Your task to perform on an android device: open app "Grab" Image 0: 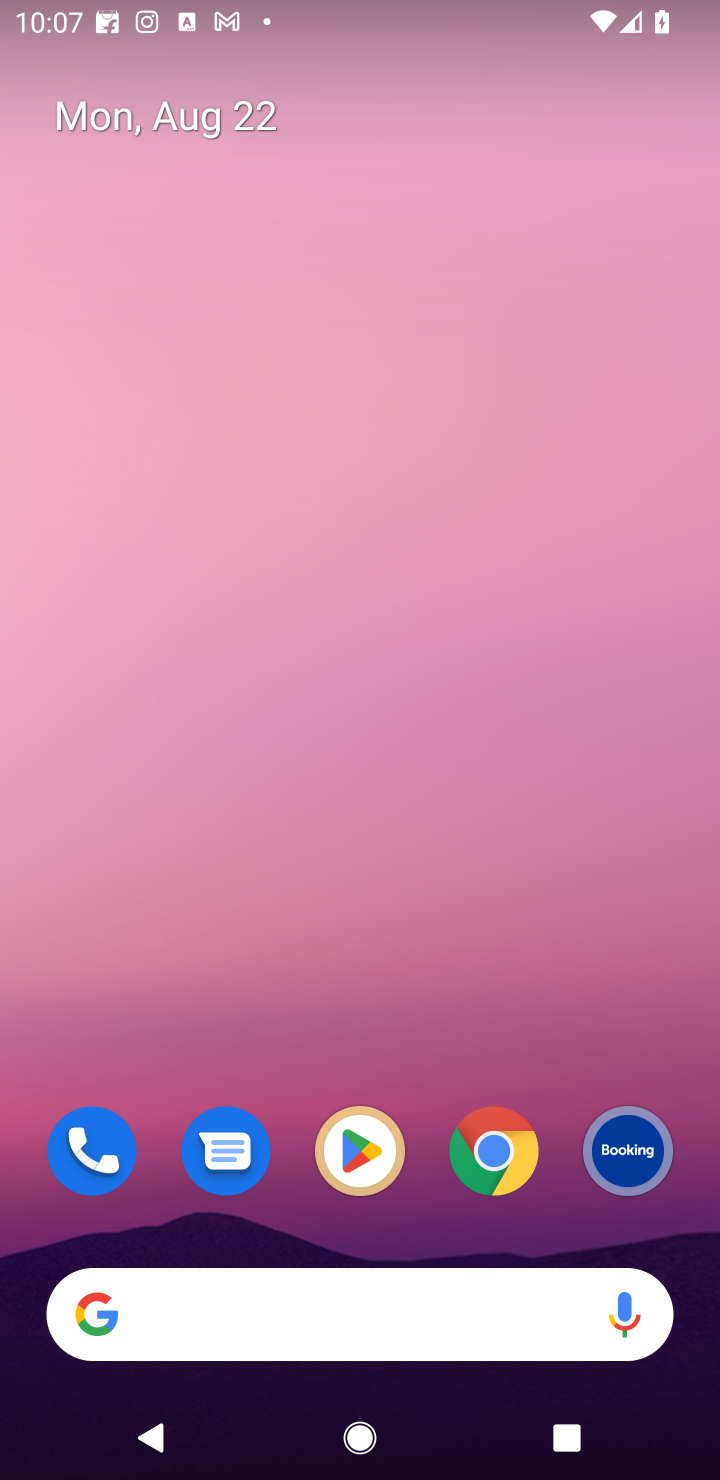
Step 0: press home button
Your task to perform on an android device: open app "Grab" Image 1: 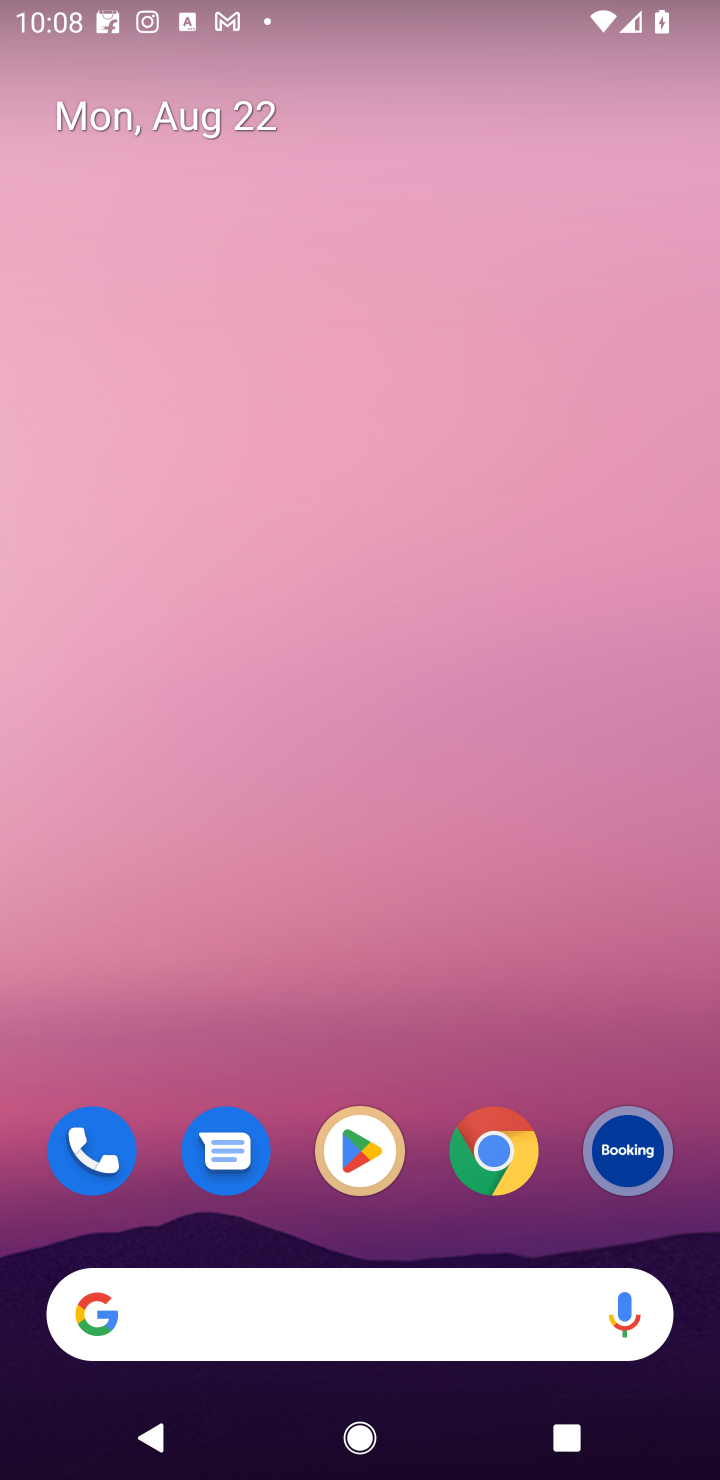
Step 1: click (368, 1156)
Your task to perform on an android device: open app "Grab" Image 2: 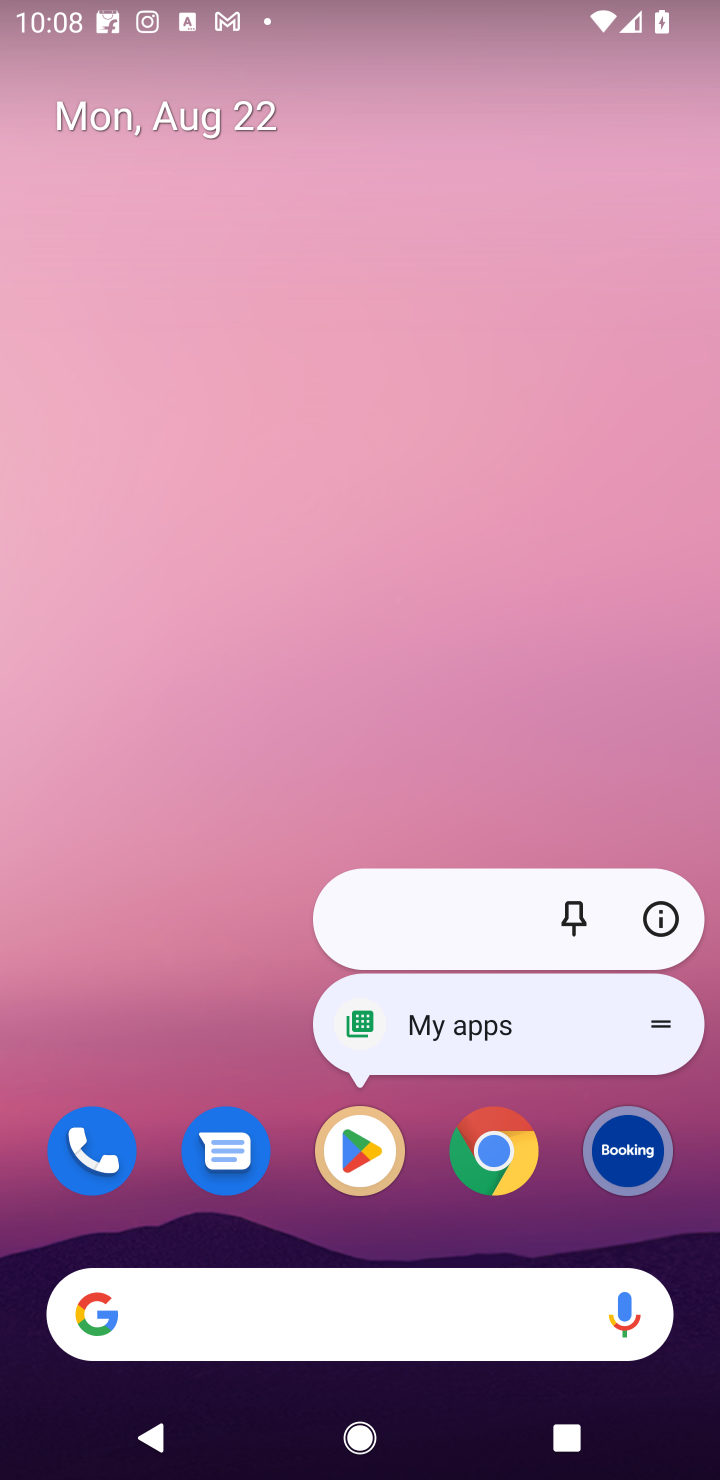
Step 2: click (368, 1171)
Your task to perform on an android device: open app "Grab" Image 3: 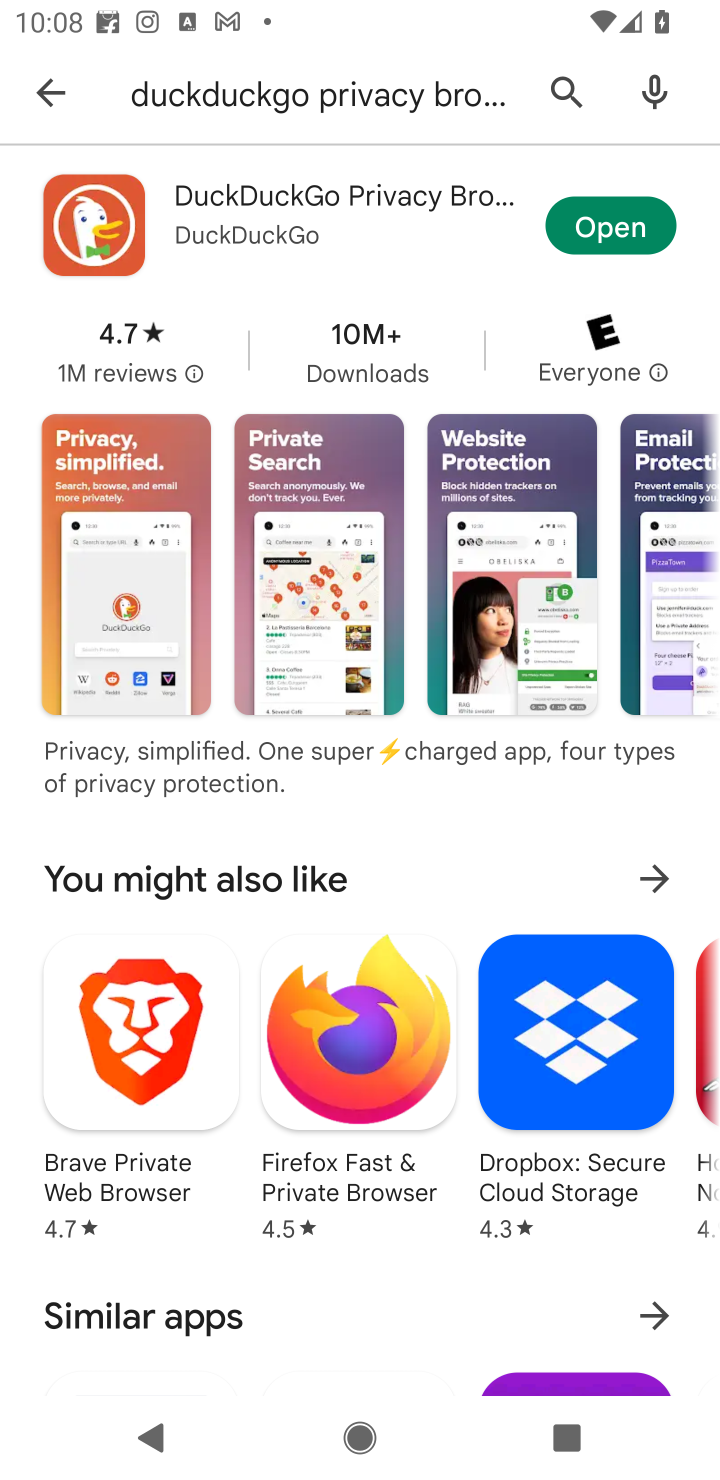
Step 3: click (573, 91)
Your task to perform on an android device: open app "Grab" Image 4: 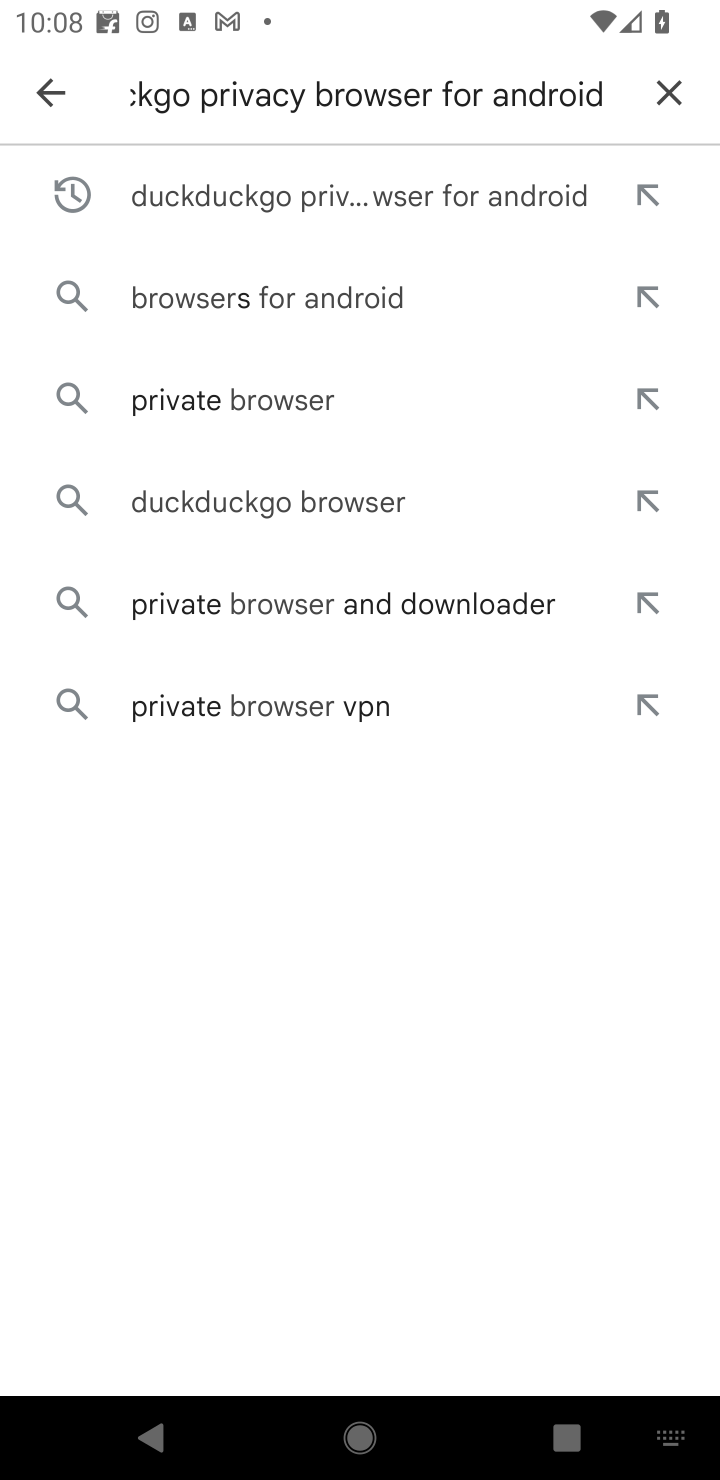
Step 4: click (664, 83)
Your task to perform on an android device: open app "Grab" Image 5: 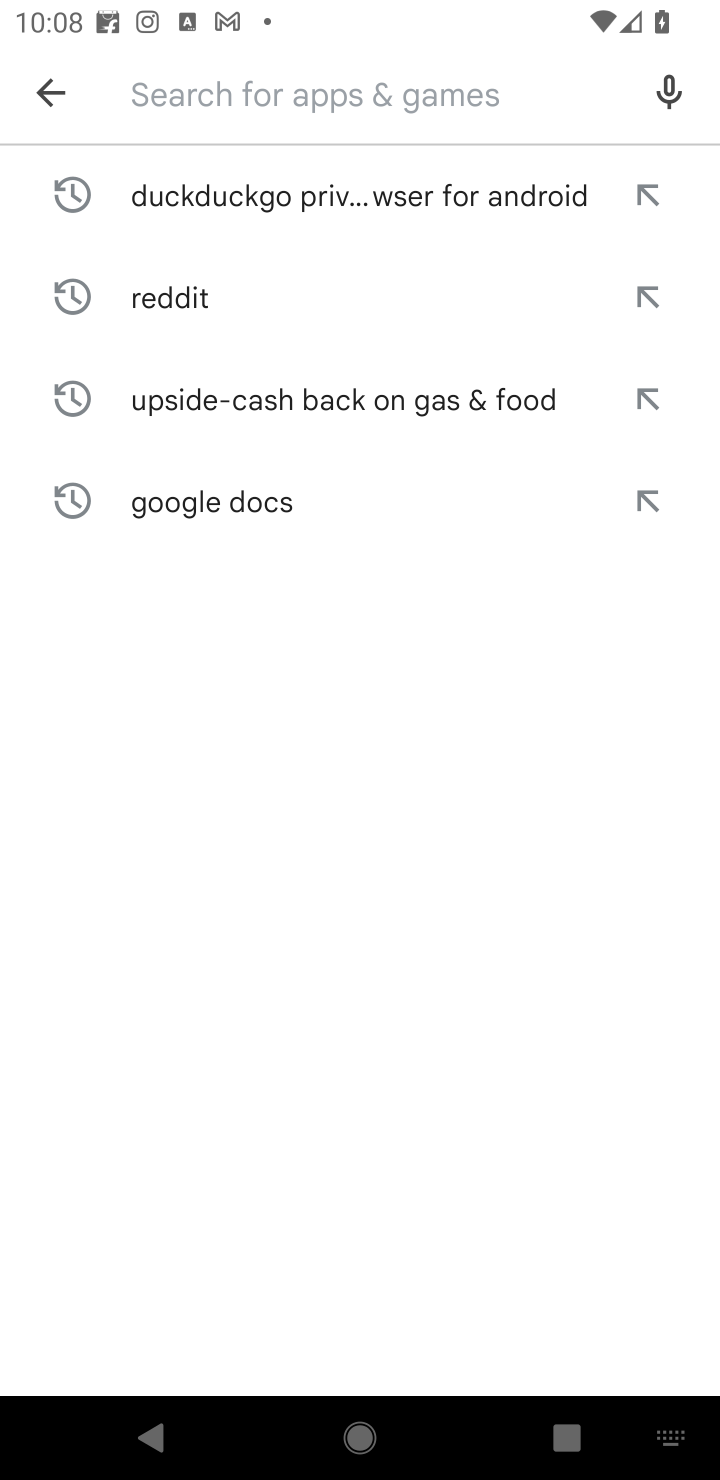
Step 5: type "Grab"
Your task to perform on an android device: open app "Grab" Image 6: 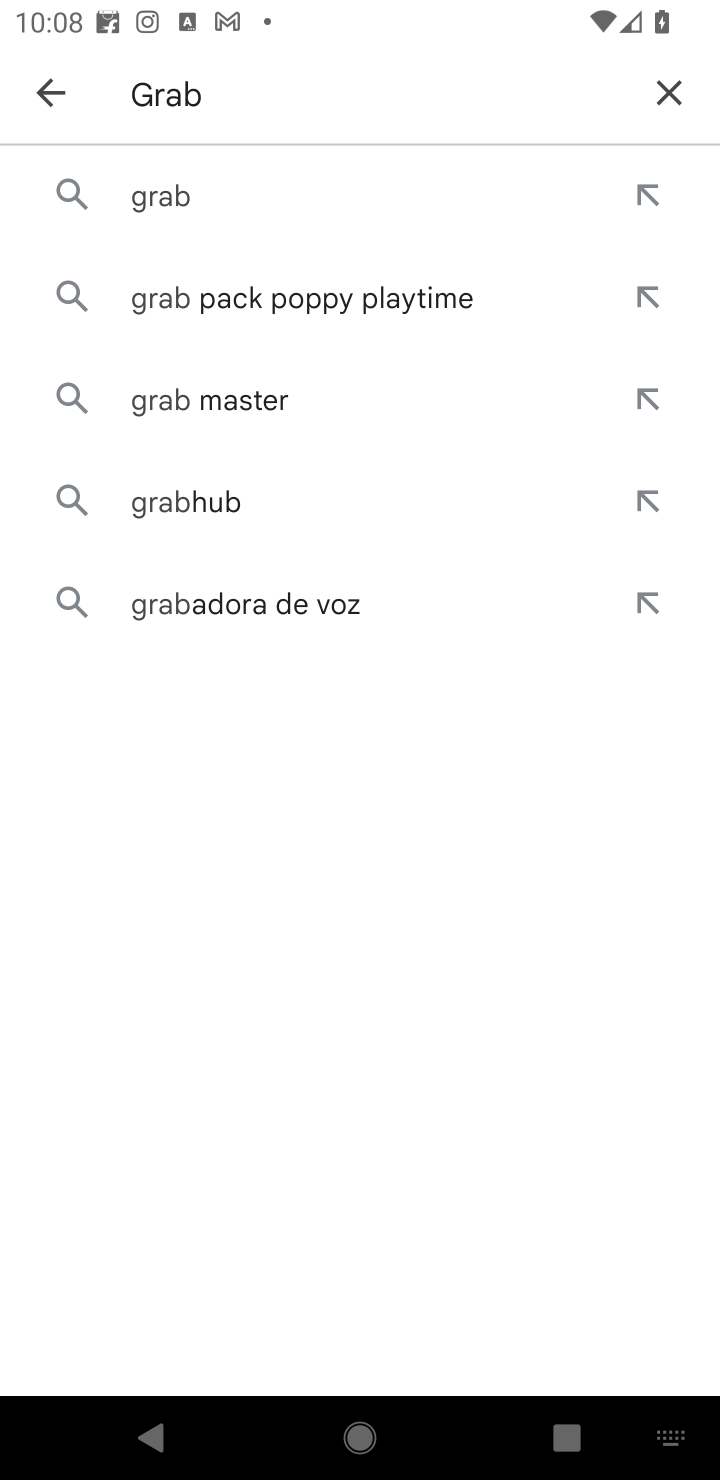
Step 6: click (186, 196)
Your task to perform on an android device: open app "Grab" Image 7: 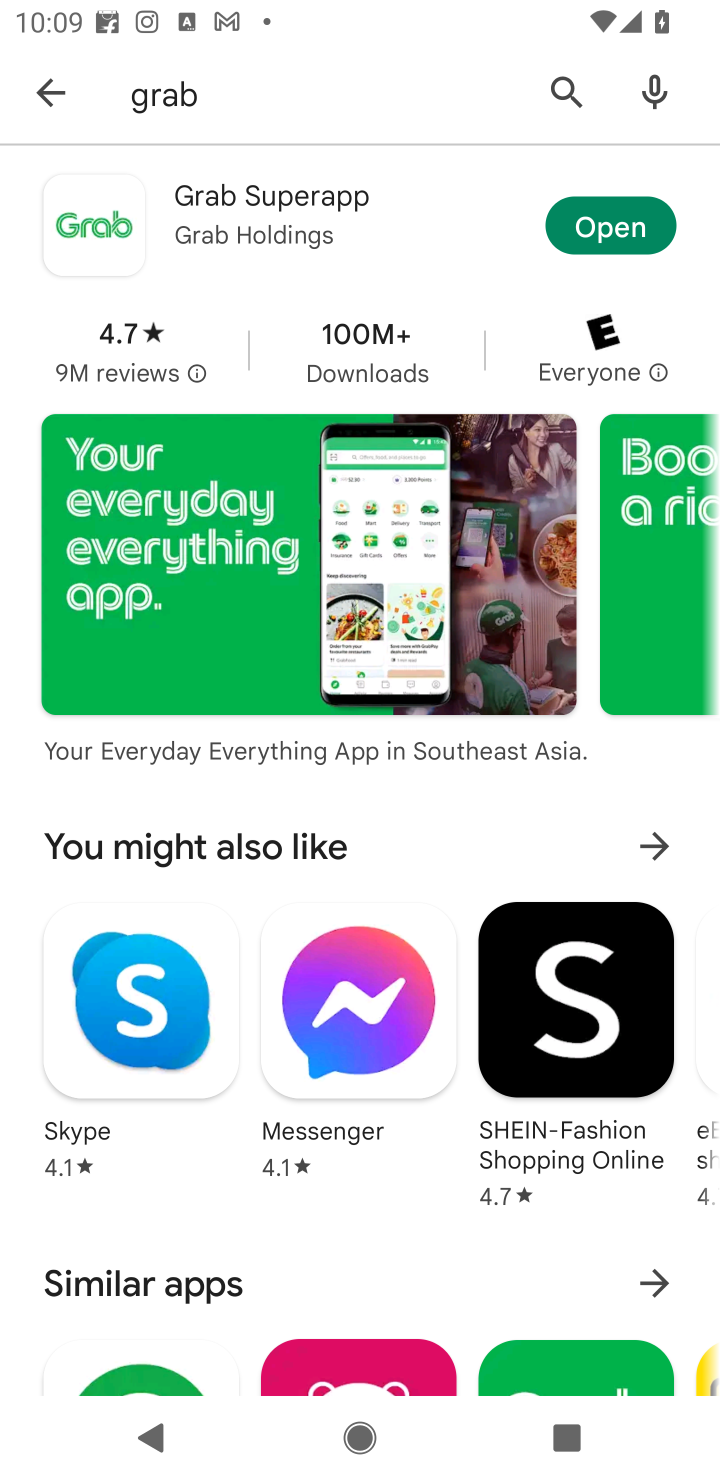
Step 7: click (642, 229)
Your task to perform on an android device: open app "Grab" Image 8: 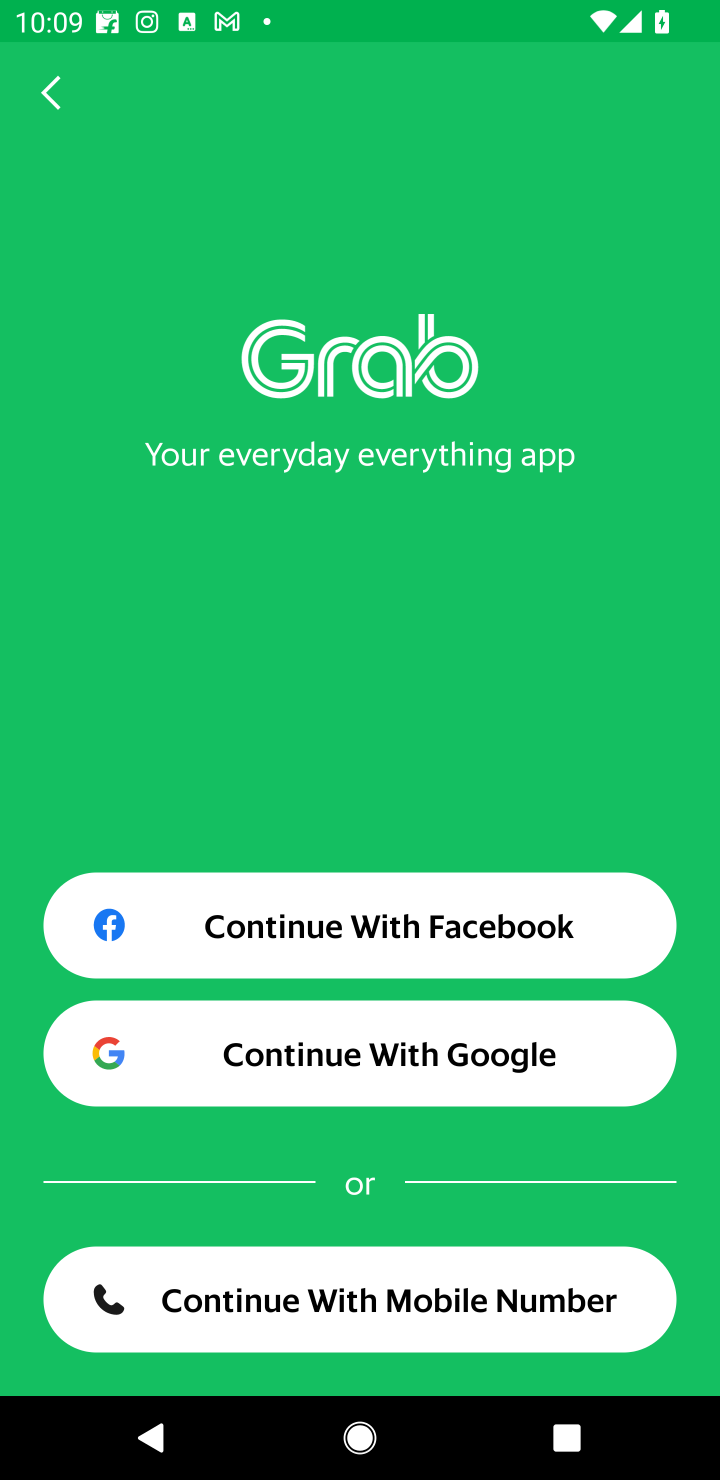
Step 8: task complete